Your task to perform on an android device: Open the calendar and show me this week's events Image 0: 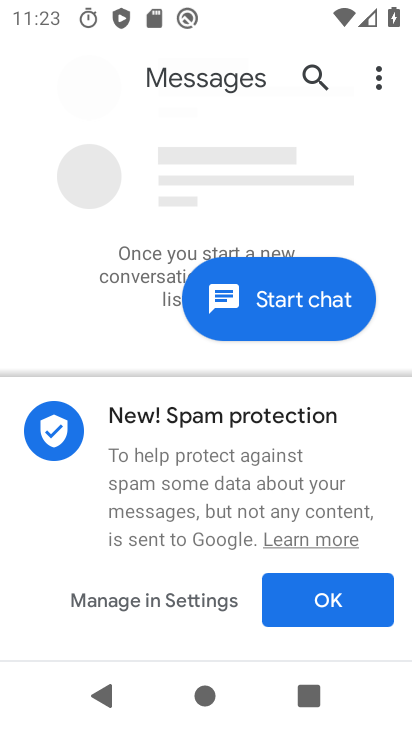
Step 0: press home button
Your task to perform on an android device: Open the calendar and show me this week's events Image 1: 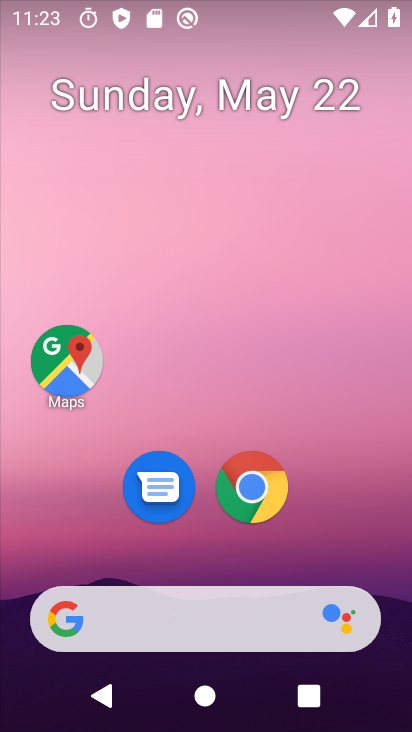
Step 1: drag from (306, 466) to (359, 73)
Your task to perform on an android device: Open the calendar and show me this week's events Image 2: 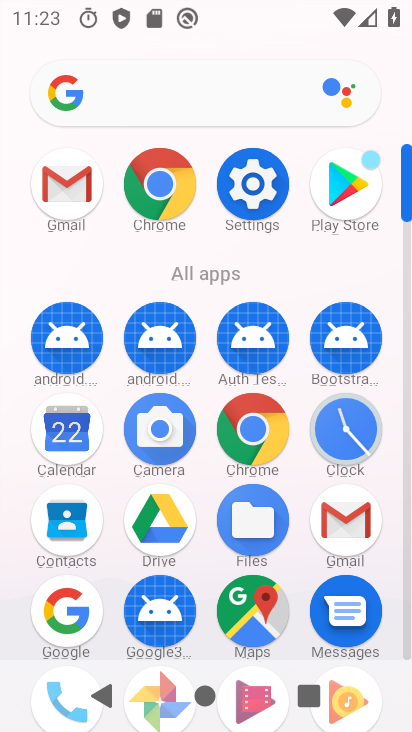
Step 2: click (42, 442)
Your task to perform on an android device: Open the calendar and show me this week's events Image 3: 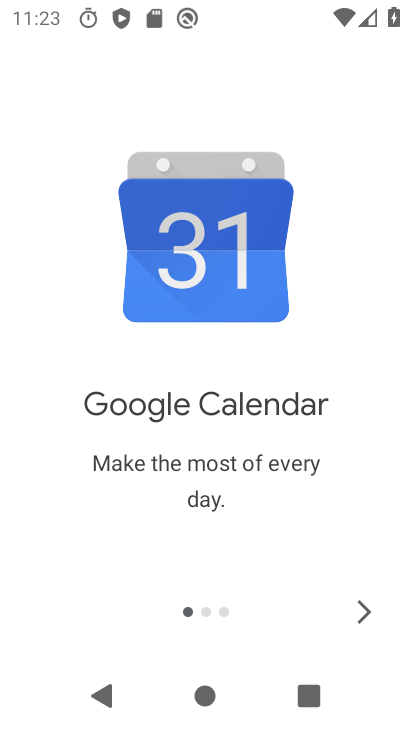
Step 3: click (375, 618)
Your task to perform on an android device: Open the calendar and show me this week's events Image 4: 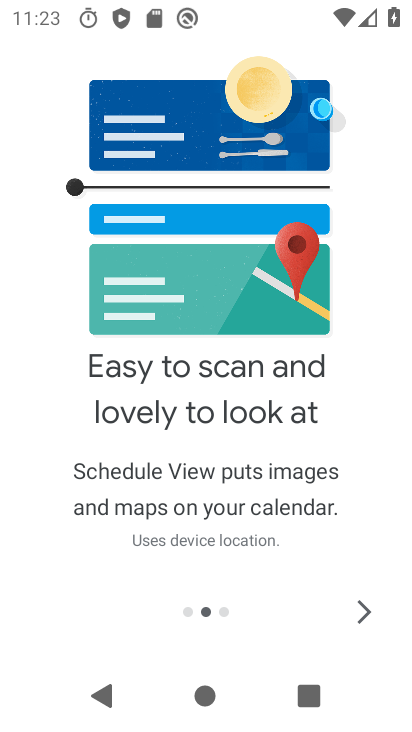
Step 4: click (375, 618)
Your task to perform on an android device: Open the calendar and show me this week's events Image 5: 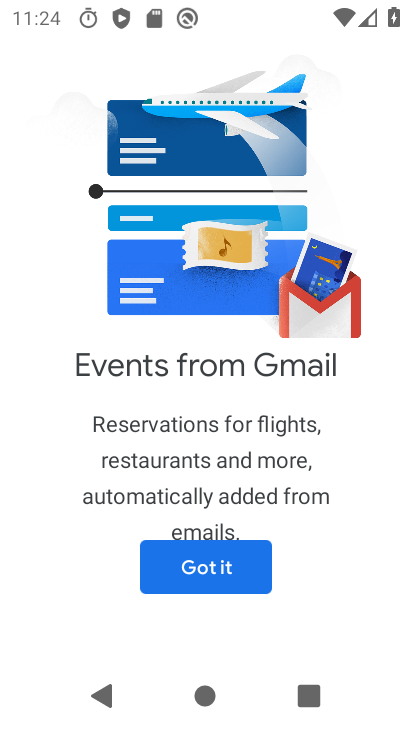
Step 5: click (214, 591)
Your task to perform on an android device: Open the calendar and show me this week's events Image 6: 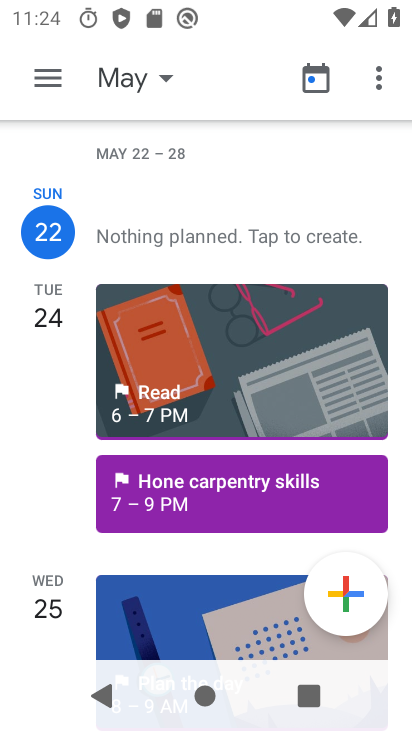
Step 6: click (119, 84)
Your task to perform on an android device: Open the calendar and show me this week's events Image 7: 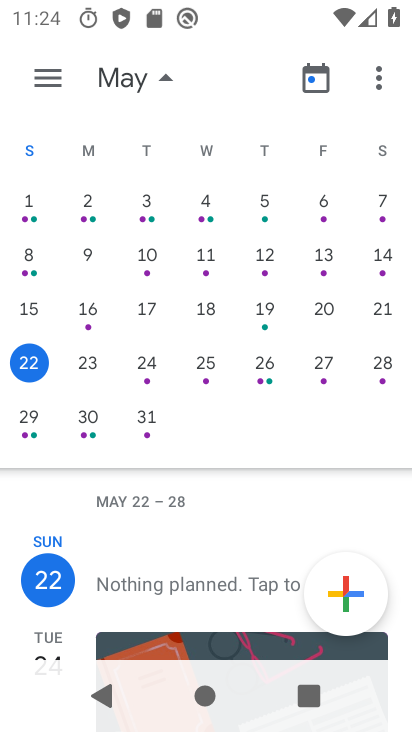
Step 7: task complete